Your task to perform on an android device: uninstall "Clock" Image 0: 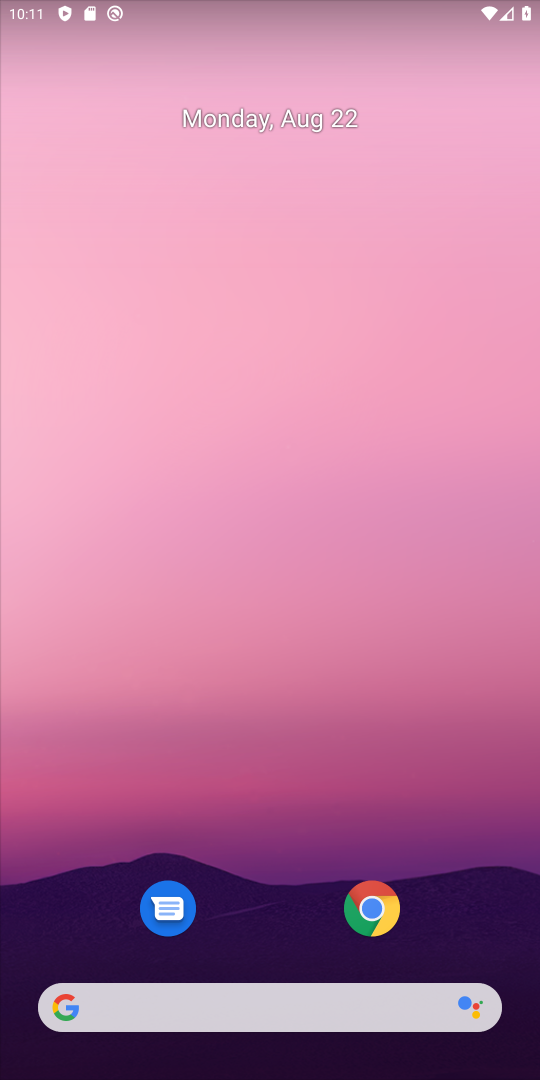
Step 0: drag from (254, 946) to (344, 53)
Your task to perform on an android device: uninstall "Clock" Image 1: 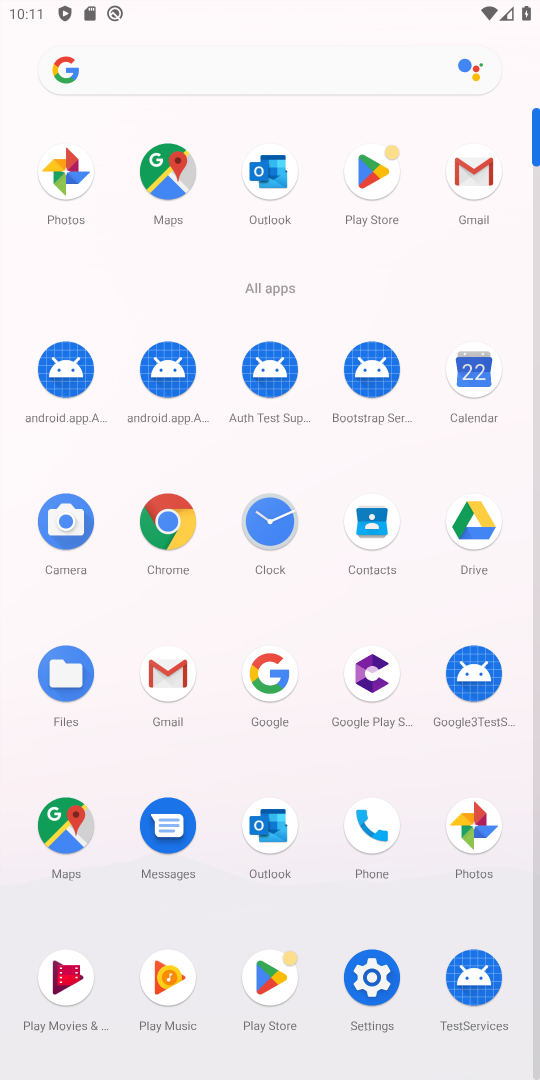
Step 1: click (379, 176)
Your task to perform on an android device: uninstall "Clock" Image 2: 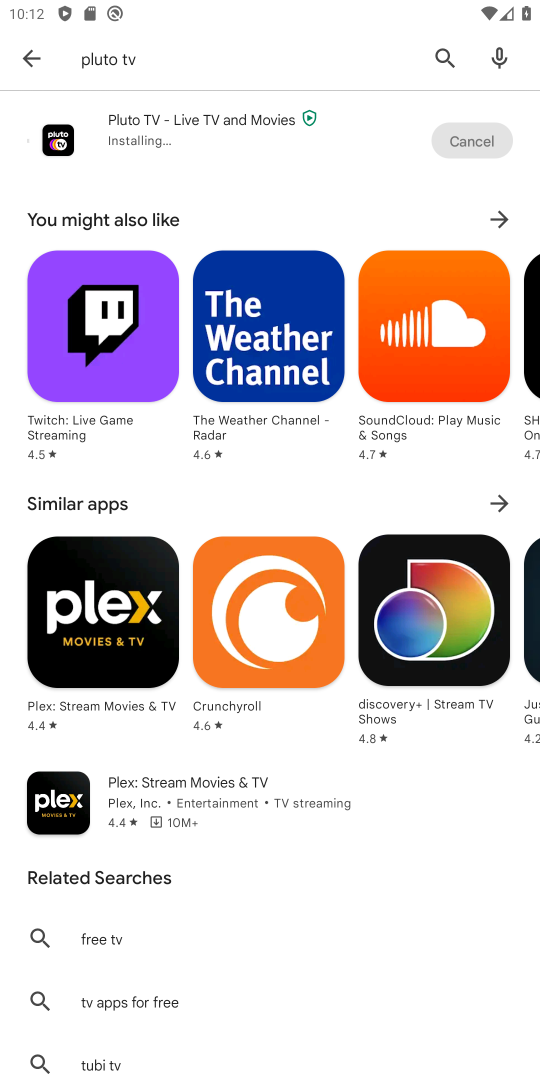
Step 2: task complete